Your task to perform on an android device: Search for vegetarian restaurants on Maps Image 0: 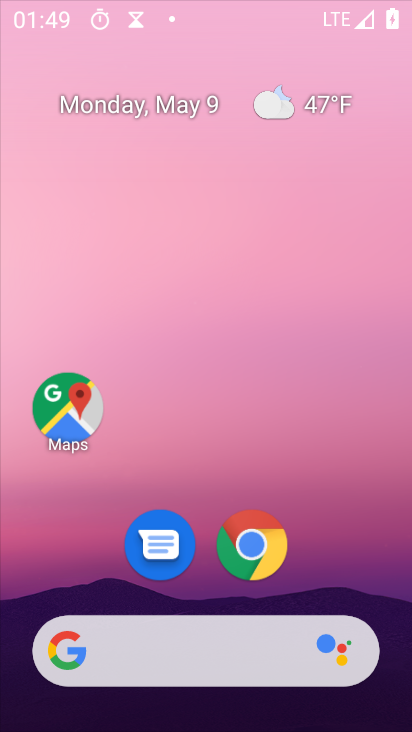
Step 0: drag from (341, 565) to (364, 19)
Your task to perform on an android device: Search for vegetarian restaurants on Maps Image 1: 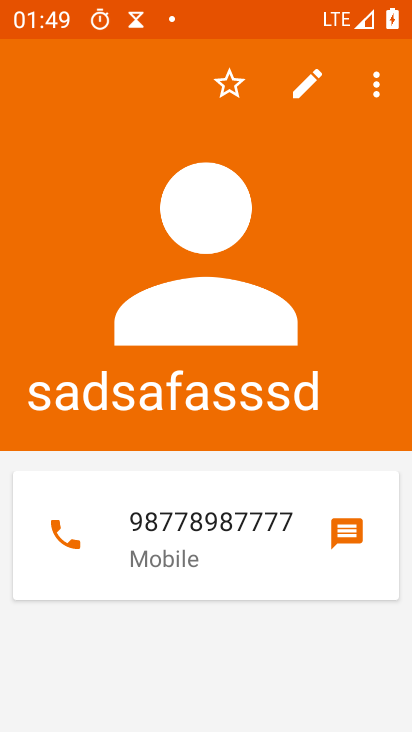
Step 1: press home button
Your task to perform on an android device: Search for vegetarian restaurants on Maps Image 2: 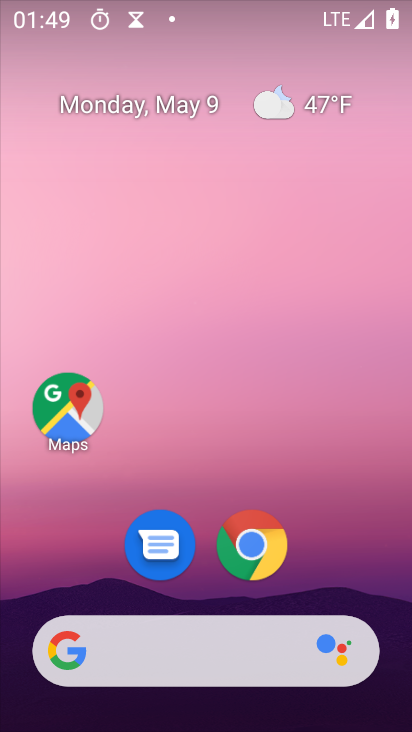
Step 2: drag from (222, 511) to (293, 7)
Your task to perform on an android device: Search for vegetarian restaurants on Maps Image 3: 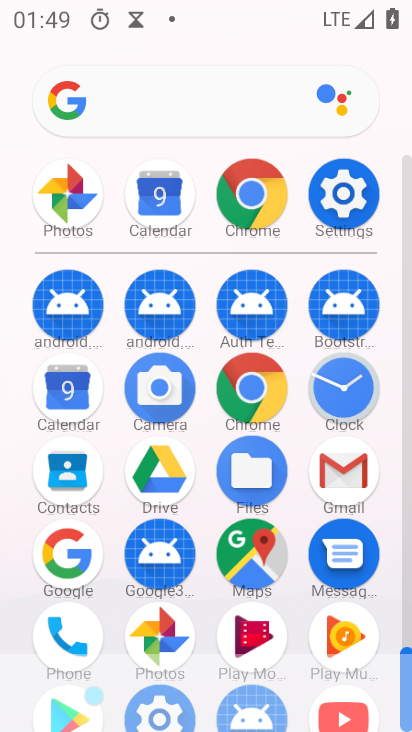
Step 3: click (272, 562)
Your task to perform on an android device: Search for vegetarian restaurants on Maps Image 4: 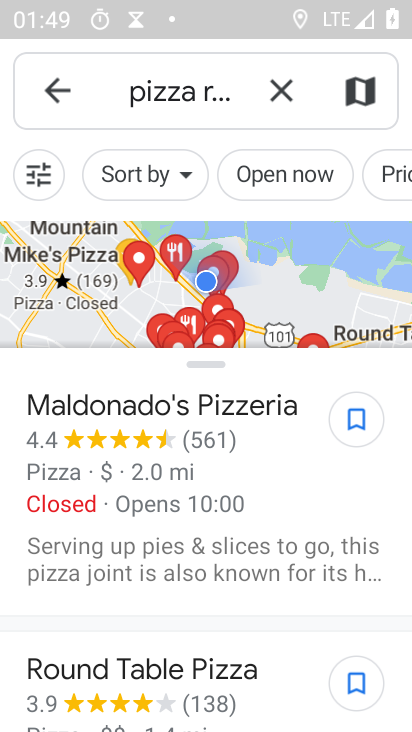
Step 4: click (280, 93)
Your task to perform on an android device: Search for vegetarian restaurants on Maps Image 5: 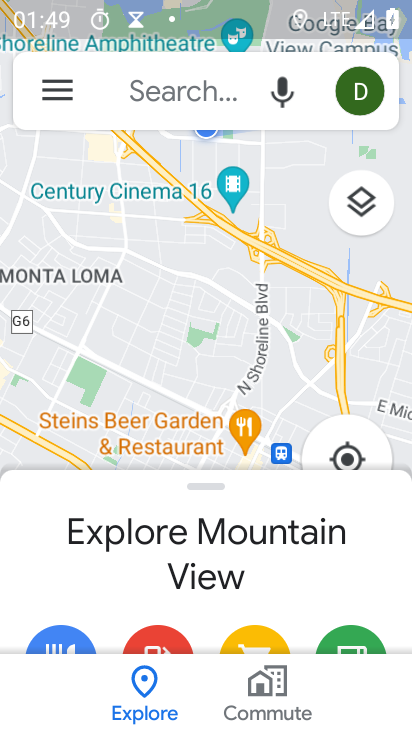
Step 5: click (206, 99)
Your task to perform on an android device: Search for vegetarian restaurants on Maps Image 6: 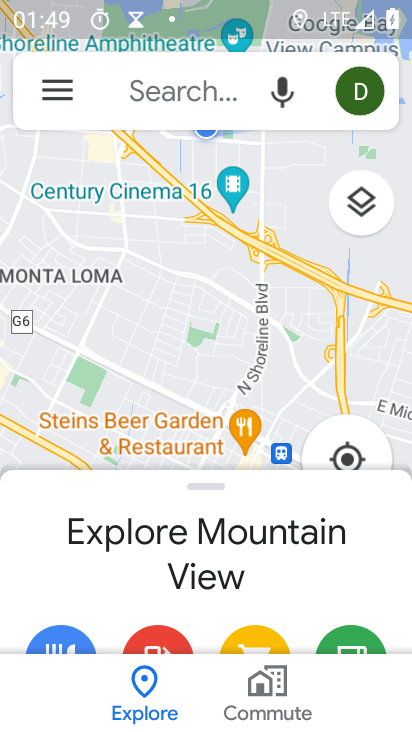
Step 6: click (205, 102)
Your task to perform on an android device: Search for vegetarian restaurants on Maps Image 7: 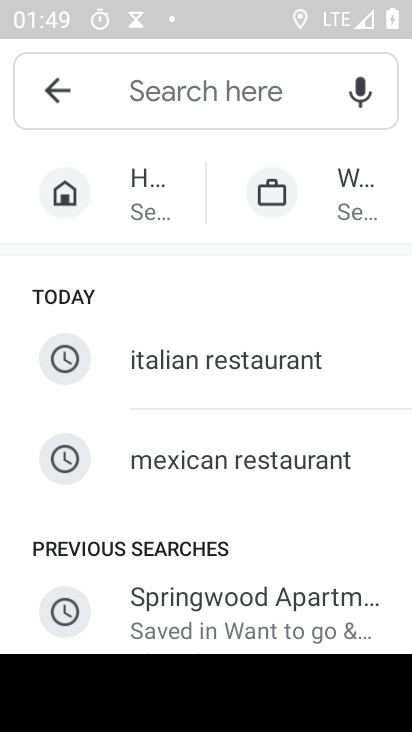
Step 7: type "vegetarian restaurant"
Your task to perform on an android device: Search for vegetarian restaurants on Maps Image 8: 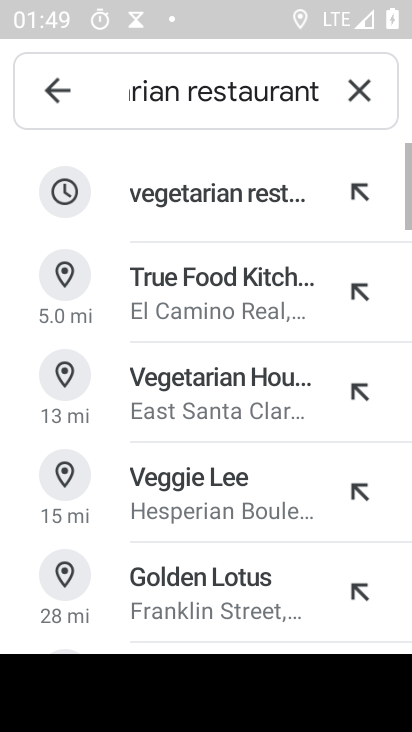
Step 8: click (261, 203)
Your task to perform on an android device: Search for vegetarian restaurants on Maps Image 9: 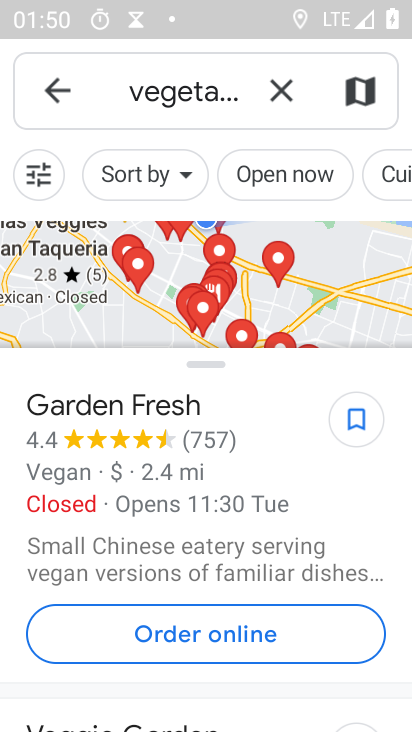
Step 9: task complete